Your task to perform on an android device: Open wifi settings Image 0: 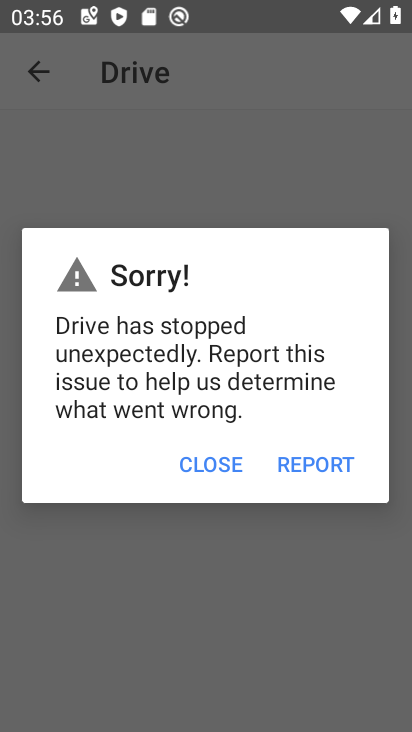
Step 0: press home button
Your task to perform on an android device: Open wifi settings Image 1: 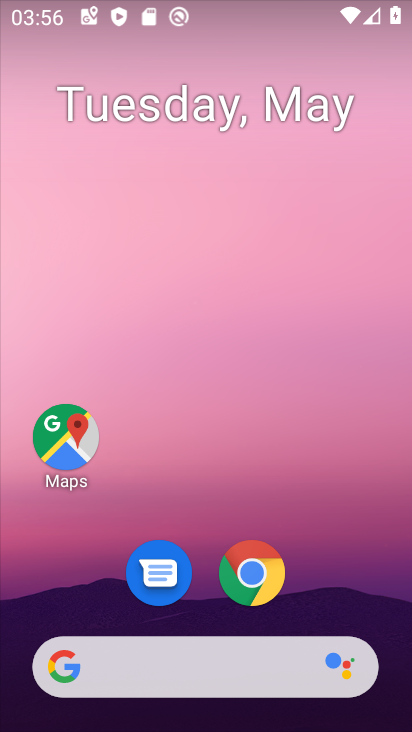
Step 1: drag from (76, 5) to (157, 628)
Your task to perform on an android device: Open wifi settings Image 2: 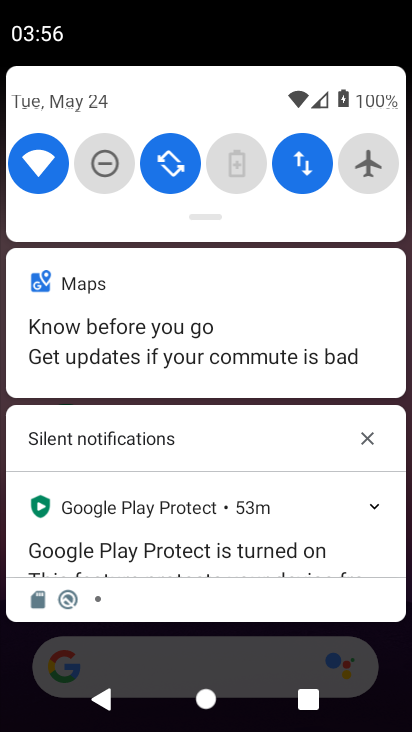
Step 2: click (41, 169)
Your task to perform on an android device: Open wifi settings Image 3: 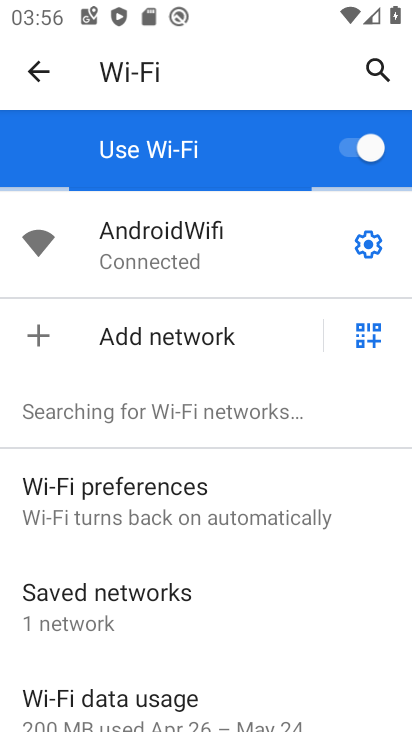
Step 3: task complete